Your task to perform on an android device: star an email in the gmail app Image 0: 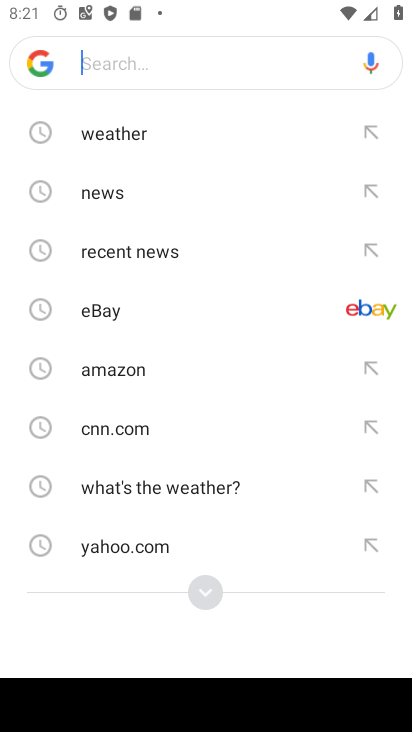
Step 0: press back button
Your task to perform on an android device: star an email in the gmail app Image 1: 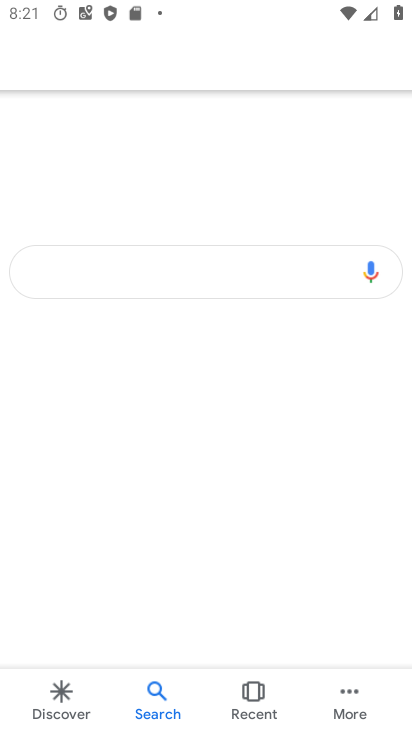
Step 1: press home button
Your task to perform on an android device: star an email in the gmail app Image 2: 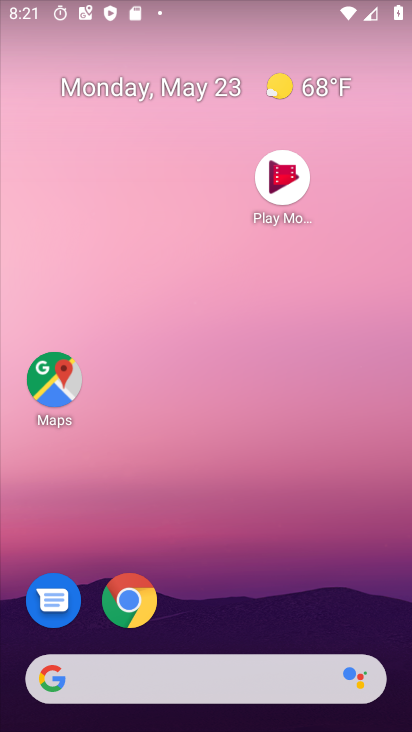
Step 2: drag from (250, 570) to (207, 293)
Your task to perform on an android device: star an email in the gmail app Image 3: 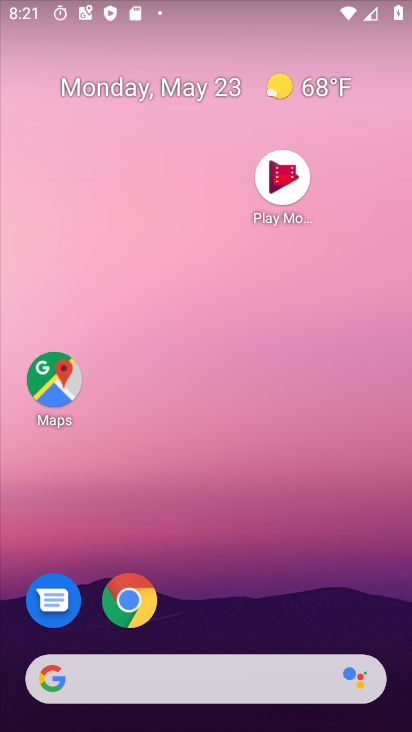
Step 3: drag from (274, 420) to (224, 20)
Your task to perform on an android device: star an email in the gmail app Image 4: 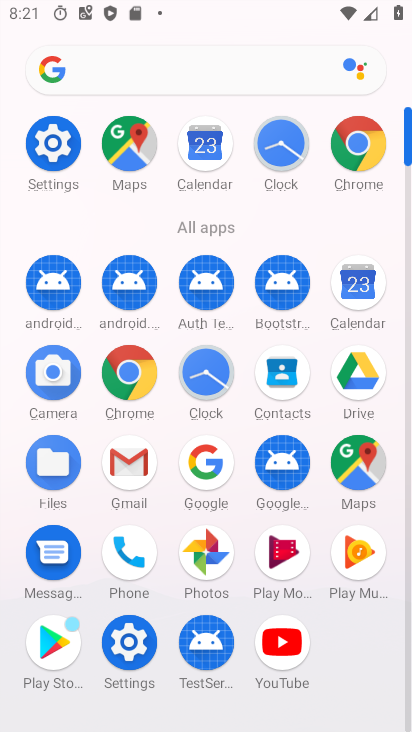
Step 4: click (119, 451)
Your task to perform on an android device: star an email in the gmail app Image 5: 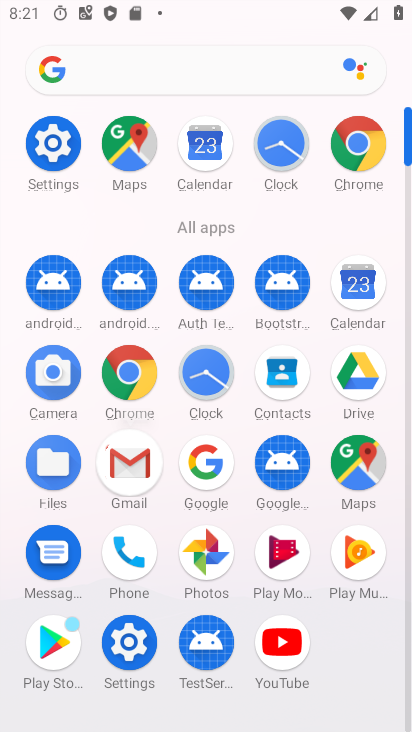
Step 5: click (124, 460)
Your task to perform on an android device: star an email in the gmail app Image 6: 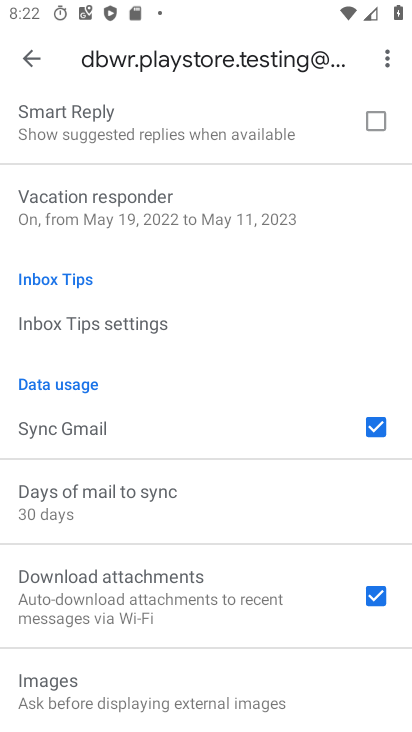
Step 6: drag from (145, 162) to (235, 511)
Your task to perform on an android device: star an email in the gmail app Image 7: 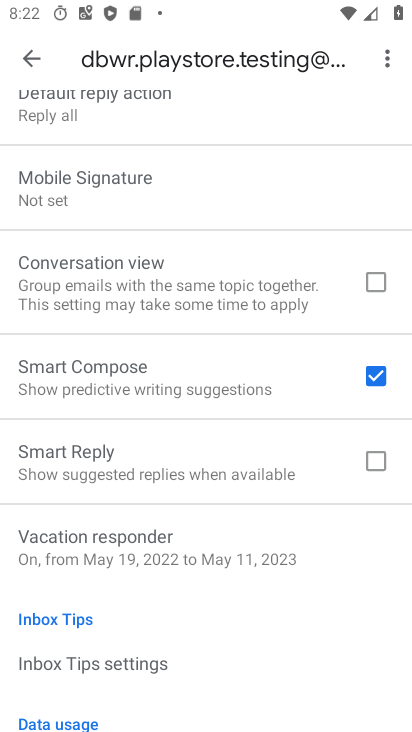
Step 7: click (27, 56)
Your task to perform on an android device: star an email in the gmail app Image 8: 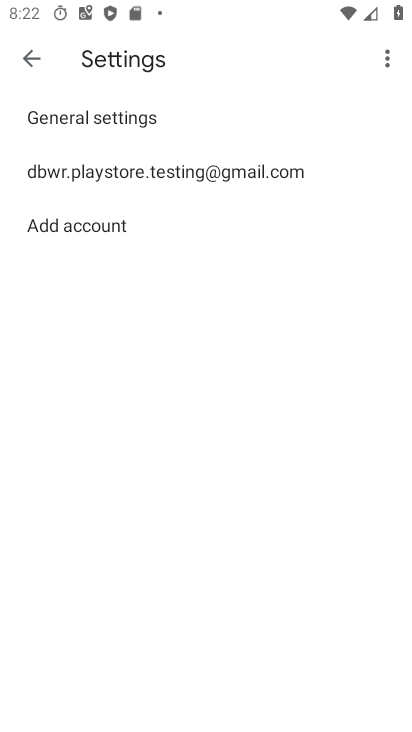
Step 8: click (36, 64)
Your task to perform on an android device: star an email in the gmail app Image 9: 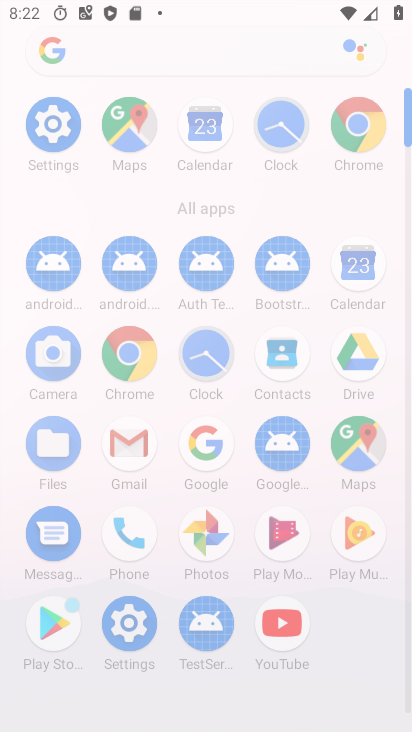
Step 9: click (24, 58)
Your task to perform on an android device: star an email in the gmail app Image 10: 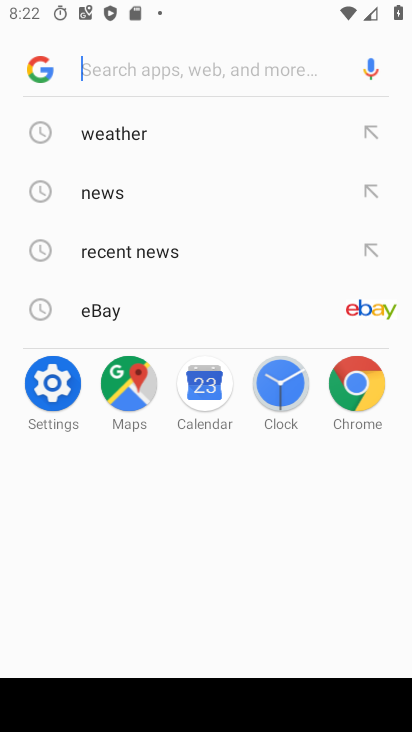
Step 10: press back button
Your task to perform on an android device: star an email in the gmail app Image 11: 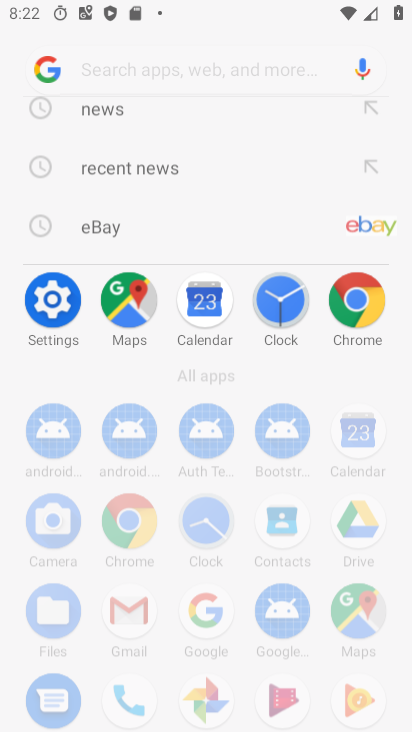
Step 11: press back button
Your task to perform on an android device: star an email in the gmail app Image 12: 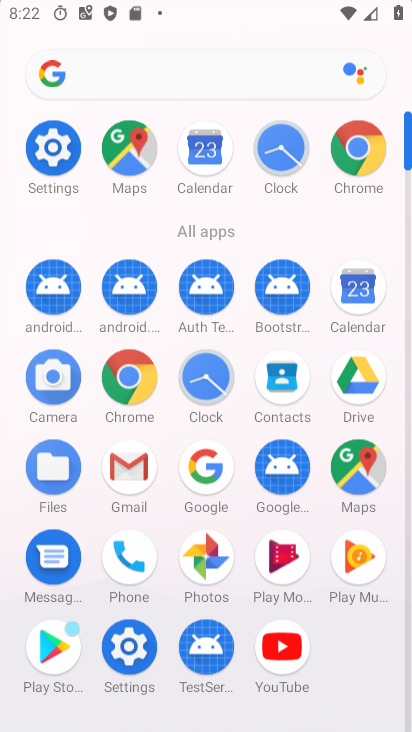
Step 12: press back button
Your task to perform on an android device: star an email in the gmail app Image 13: 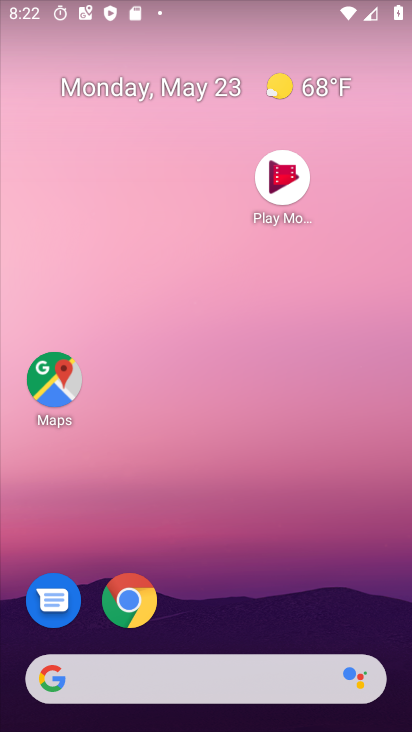
Step 13: drag from (311, 686) to (315, 123)
Your task to perform on an android device: star an email in the gmail app Image 14: 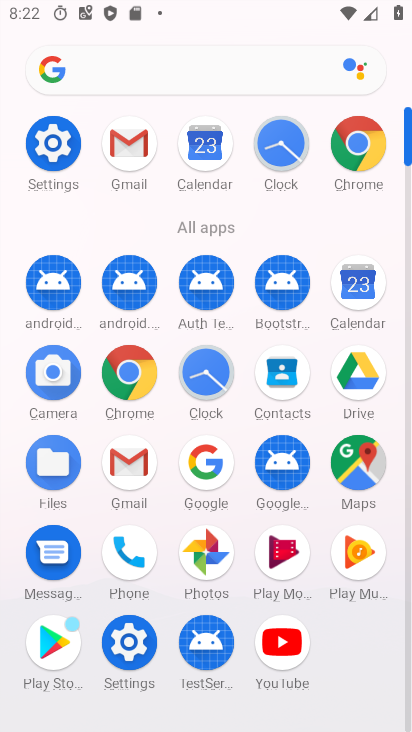
Step 14: click (124, 473)
Your task to perform on an android device: star an email in the gmail app Image 15: 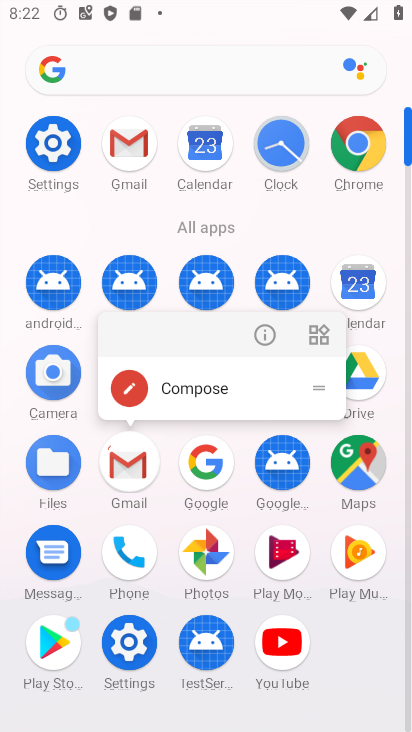
Step 15: click (126, 470)
Your task to perform on an android device: star an email in the gmail app Image 16: 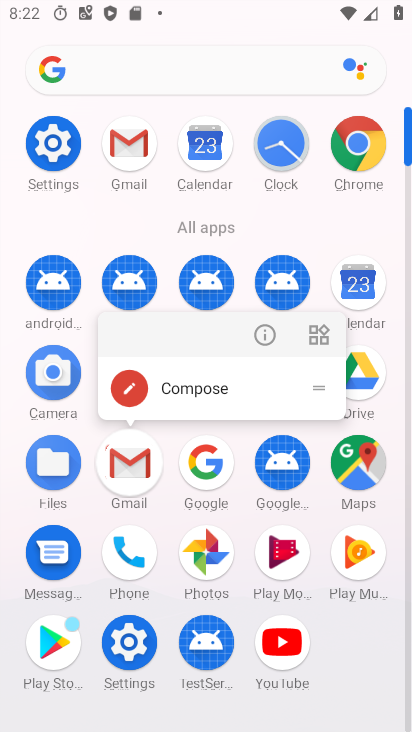
Step 16: click (127, 469)
Your task to perform on an android device: star an email in the gmail app Image 17: 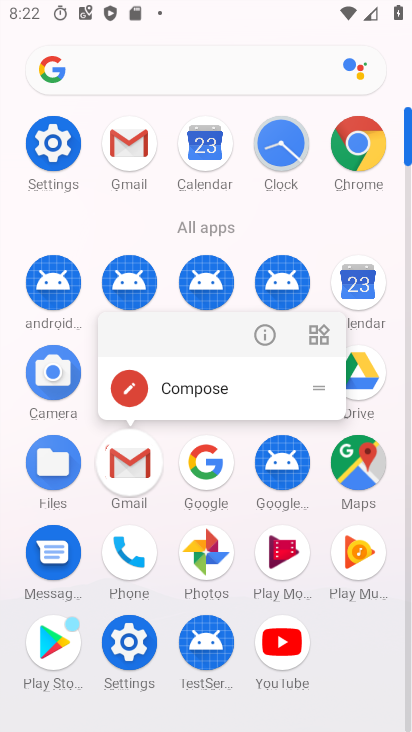
Step 17: click (128, 470)
Your task to perform on an android device: star an email in the gmail app Image 18: 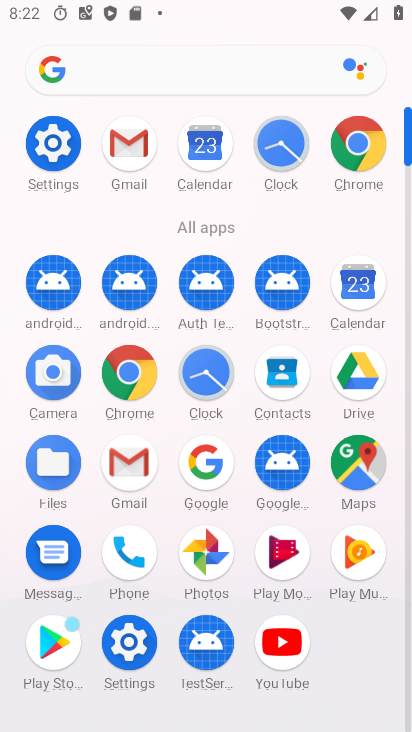
Step 18: click (129, 471)
Your task to perform on an android device: star an email in the gmail app Image 19: 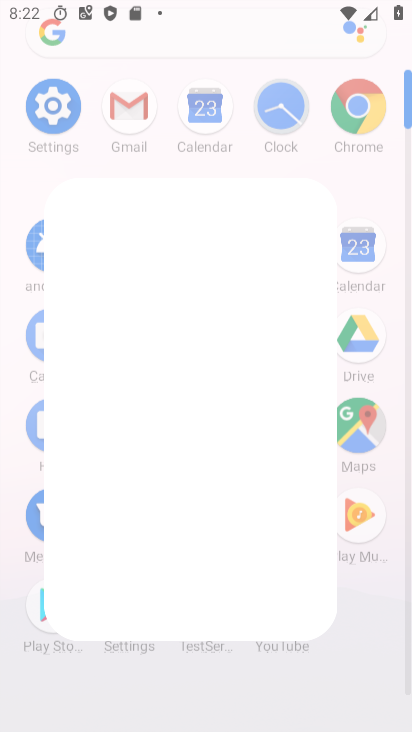
Step 19: click (133, 466)
Your task to perform on an android device: star an email in the gmail app Image 20: 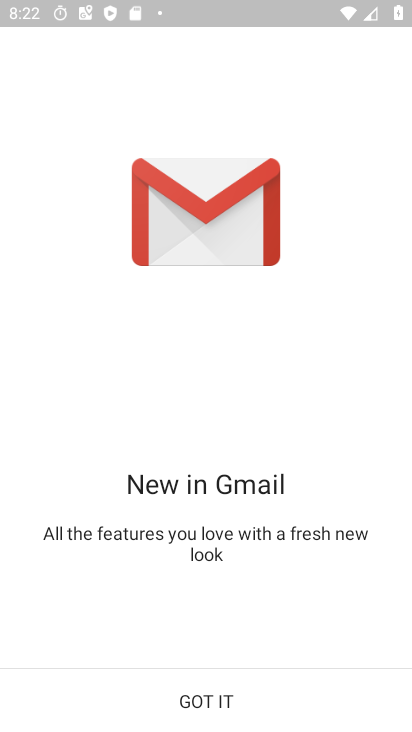
Step 20: click (212, 690)
Your task to perform on an android device: star an email in the gmail app Image 21: 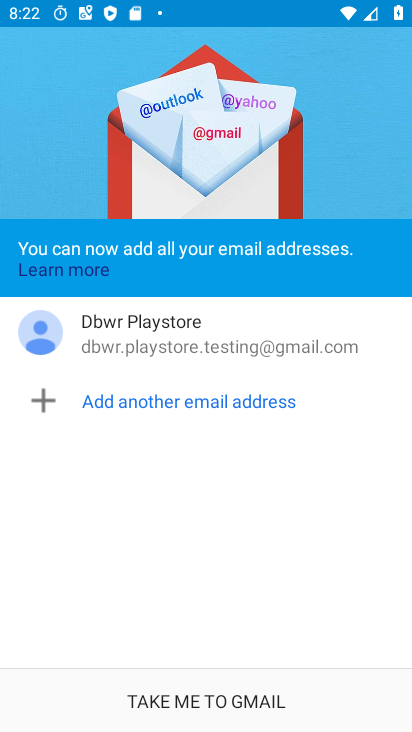
Step 21: press home button
Your task to perform on an android device: star an email in the gmail app Image 22: 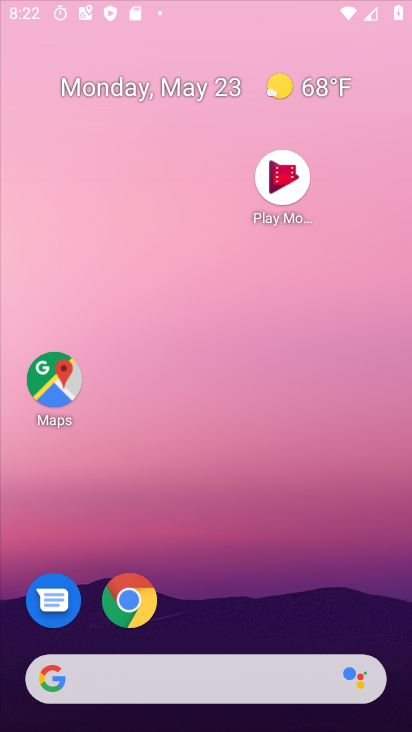
Step 22: press home button
Your task to perform on an android device: star an email in the gmail app Image 23: 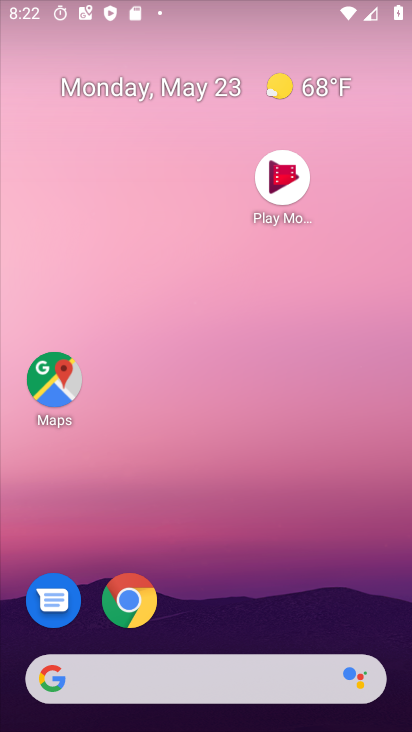
Step 23: press home button
Your task to perform on an android device: star an email in the gmail app Image 24: 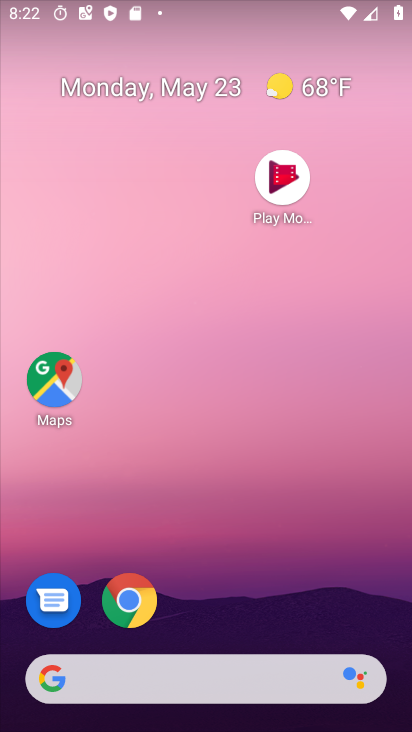
Step 24: press home button
Your task to perform on an android device: star an email in the gmail app Image 25: 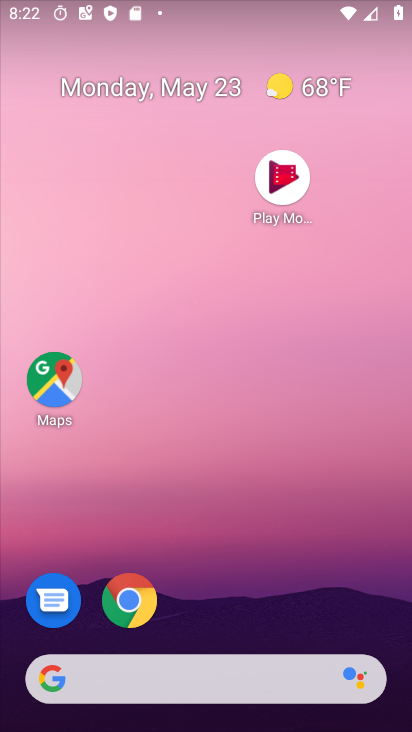
Step 25: drag from (218, 537) to (147, 76)
Your task to perform on an android device: star an email in the gmail app Image 26: 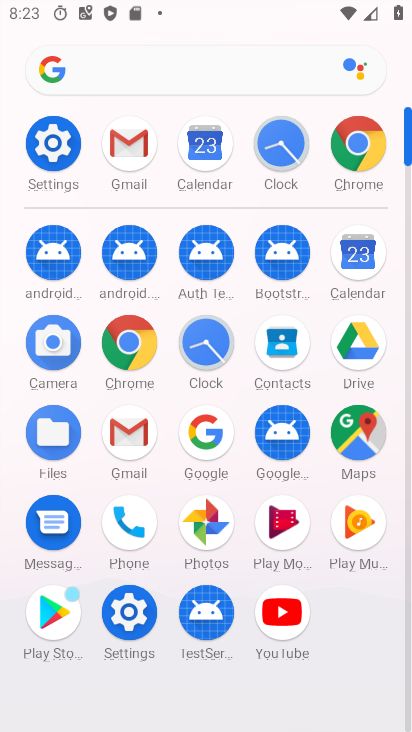
Step 26: click (134, 425)
Your task to perform on an android device: star an email in the gmail app Image 27: 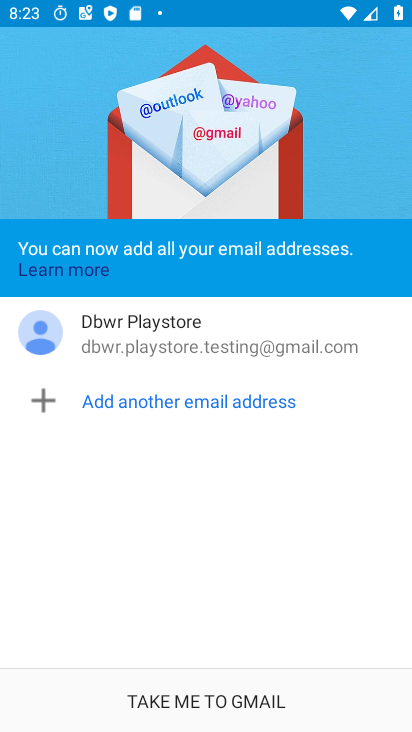
Step 27: press back button
Your task to perform on an android device: star an email in the gmail app Image 28: 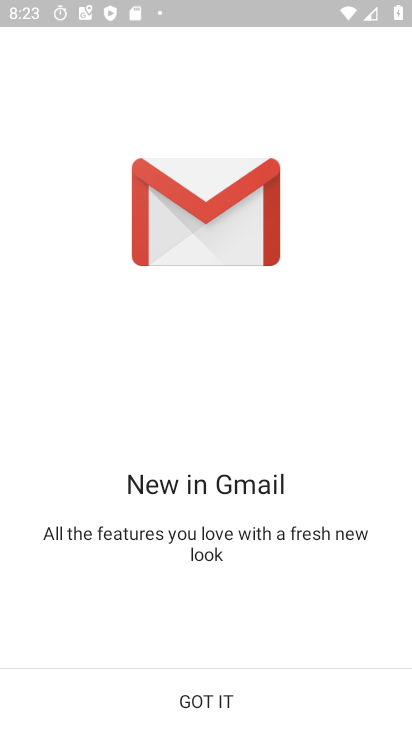
Step 28: click (188, 703)
Your task to perform on an android device: star an email in the gmail app Image 29: 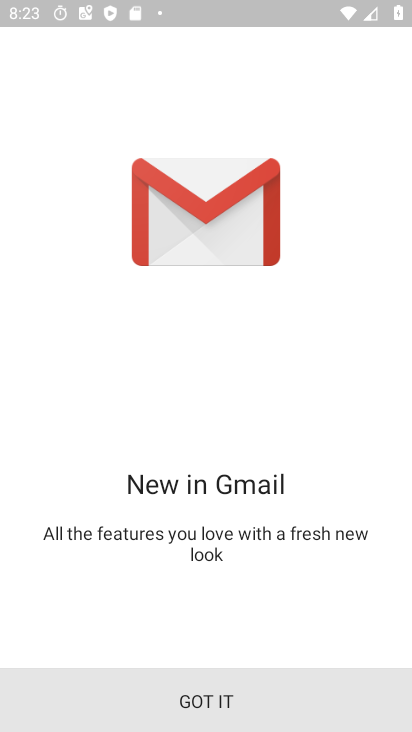
Step 29: click (196, 697)
Your task to perform on an android device: star an email in the gmail app Image 30: 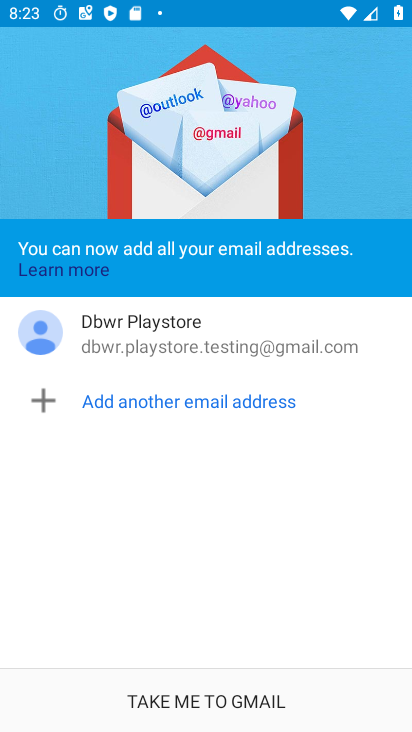
Step 30: click (197, 695)
Your task to perform on an android device: star an email in the gmail app Image 31: 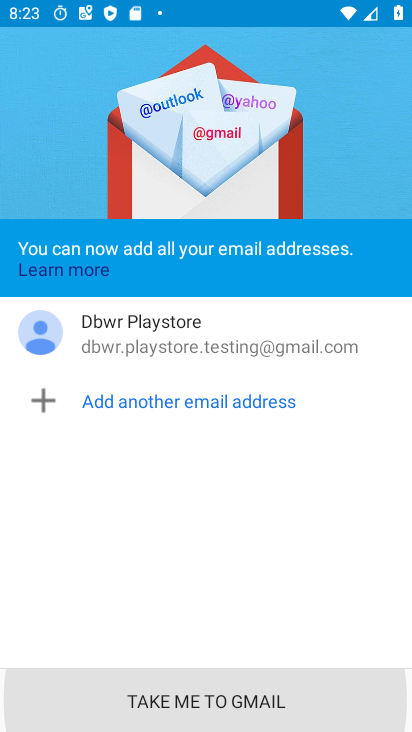
Step 31: click (202, 696)
Your task to perform on an android device: star an email in the gmail app Image 32: 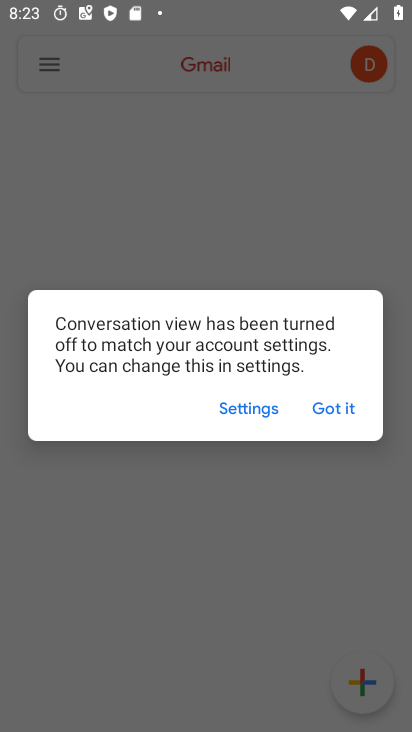
Step 32: task complete